Your task to perform on an android device: remove spam from my inbox in the gmail app Image 0: 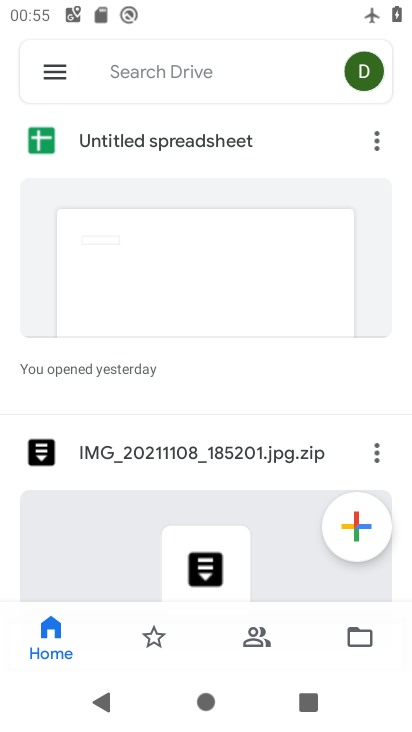
Step 0: press home button
Your task to perform on an android device: remove spam from my inbox in the gmail app Image 1: 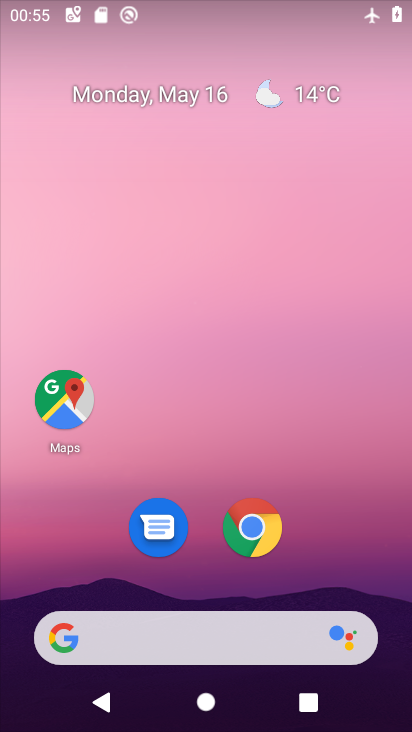
Step 1: drag from (200, 580) to (261, 28)
Your task to perform on an android device: remove spam from my inbox in the gmail app Image 2: 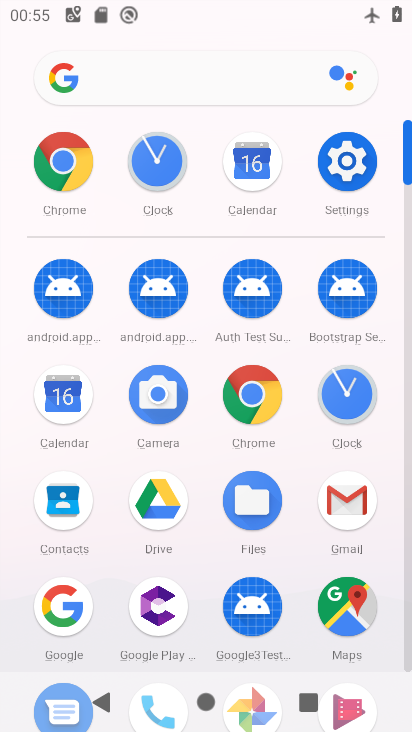
Step 2: click (354, 514)
Your task to perform on an android device: remove spam from my inbox in the gmail app Image 3: 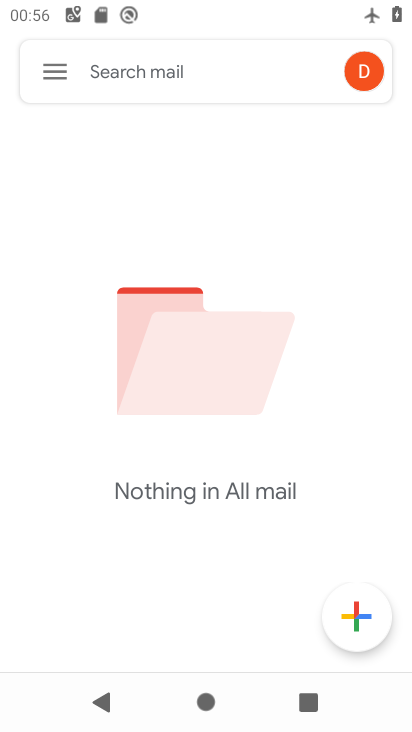
Step 3: click (59, 82)
Your task to perform on an android device: remove spam from my inbox in the gmail app Image 4: 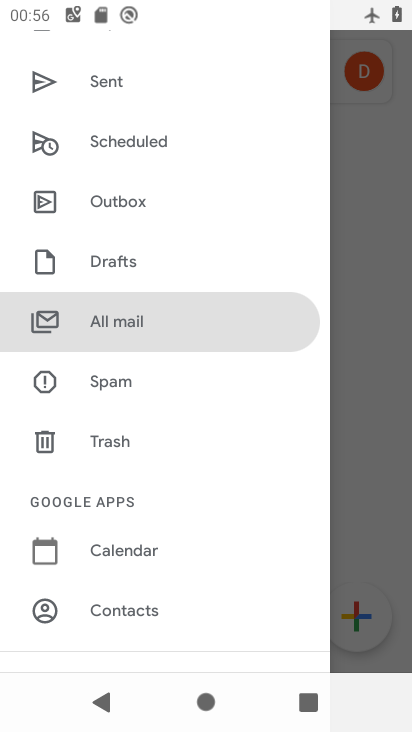
Step 4: click (114, 399)
Your task to perform on an android device: remove spam from my inbox in the gmail app Image 5: 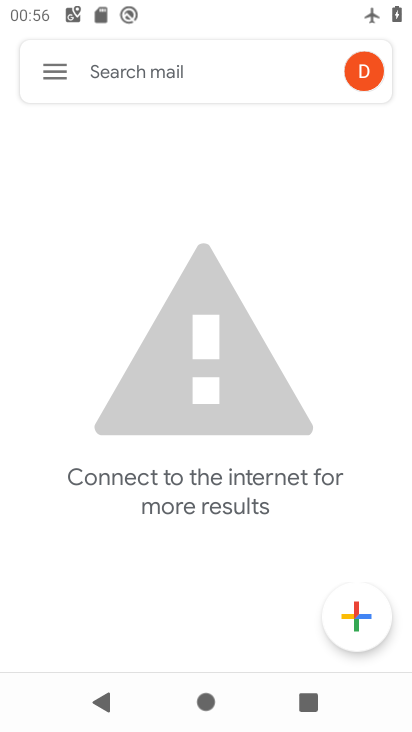
Step 5: click (49, 71)
Your task to perform on an android device: remove spam from my inbox in the gmail app Image 6: 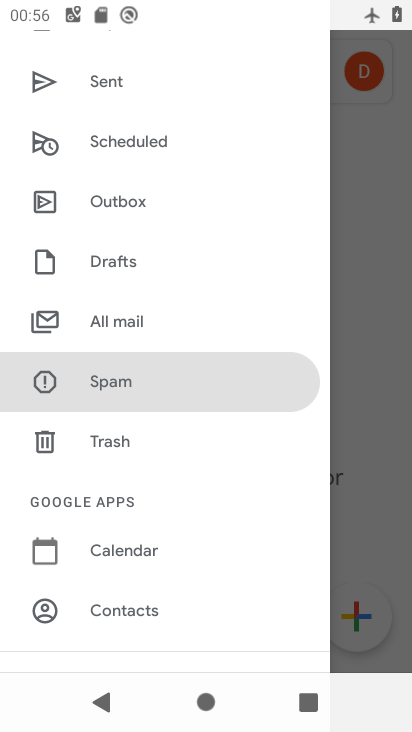
Step 6: task complete